Your task to perform on an android device: What's on my calendar tomorrow? Image 0: 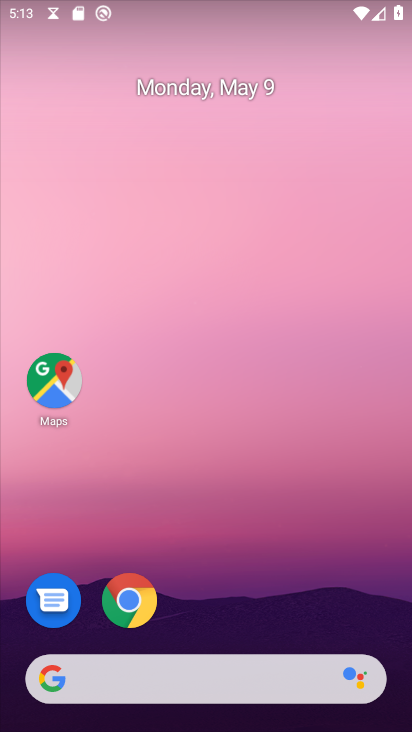
Step 0: drag from (395, 661) to (372, 31)
Your task to perform on an android device: What's on my calendar tomorrow? Image 1: 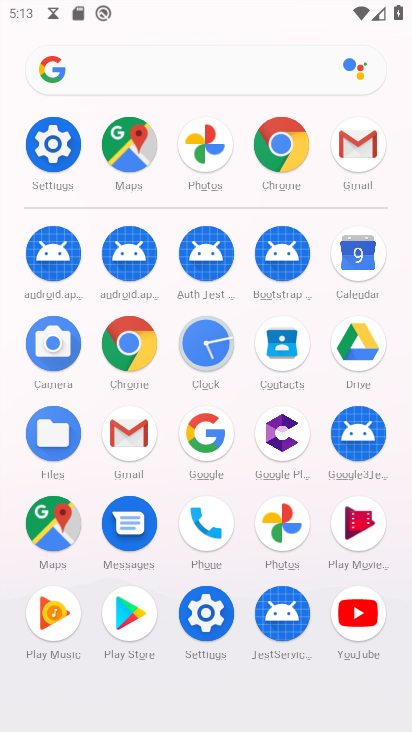
Step 1: click (346, 266)
Your task to perform on an android device: What's on my calendar tomorrow? Image 2: 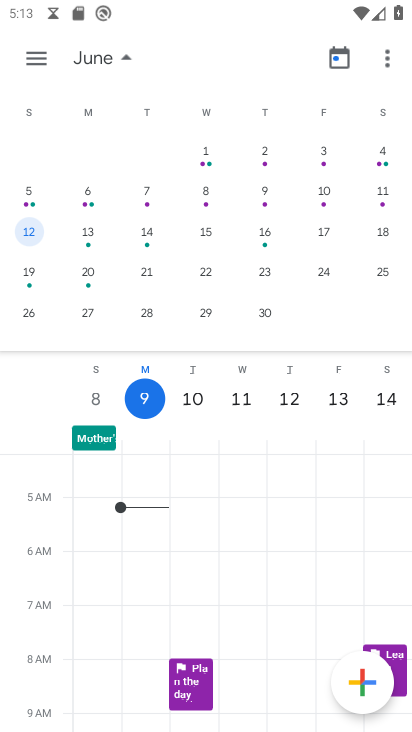
Step 2: drag from (186, 274) to (365, 246)
Your task to perform on an android device: What's on my calendar tomorrow? Image 3: 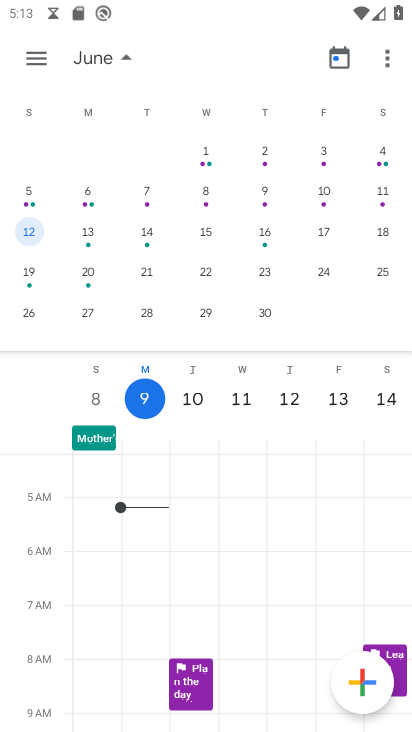
Step 3: drag from (13, 236) to (396, 245)
Your task to perform on an android device: What's on my calendar tomorrow? Image 4: 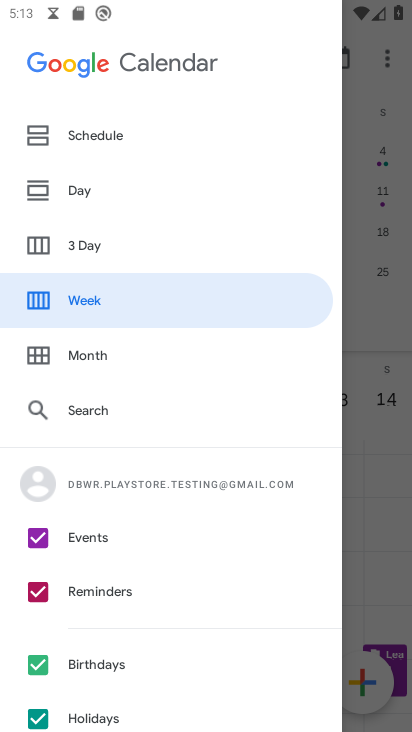
Step 4: drag from (391, 249) to (0, 248)
Your task to perform on an android device: What's on my calendar tomorrow? Image 5: 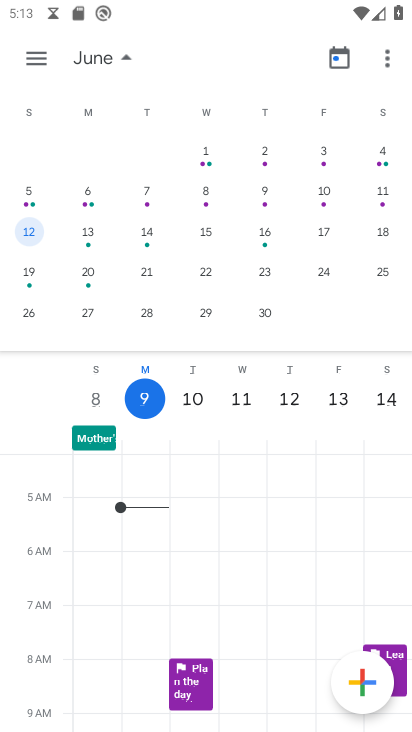
Step 5: drag from (110, 216) to (407, 203)
Your task to perform on an android device: What's on my calendar tomorrow? Image 6: 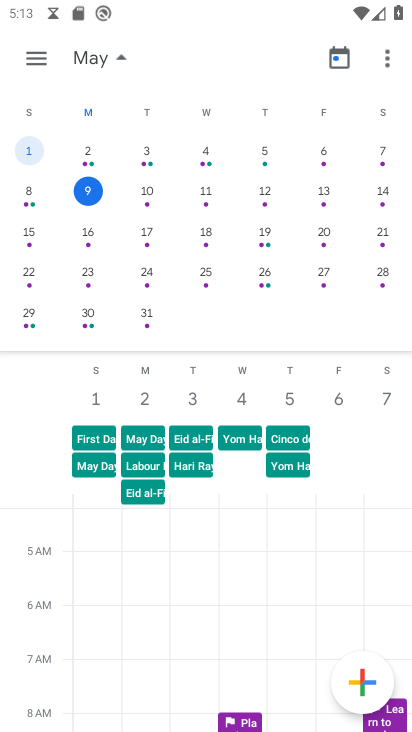
Step 6: click (156, 188)
Your task to perform on an android device: What's on my calendar tomorrow? Image 7: 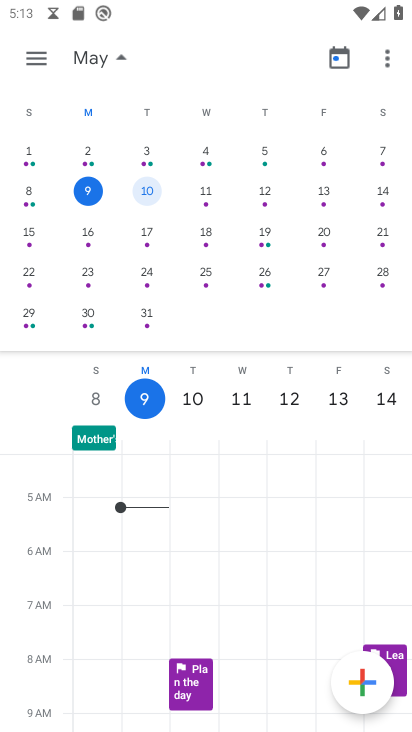
Step 7: task complete